Your task to perform on an android device: change keyboard looks Image 0: 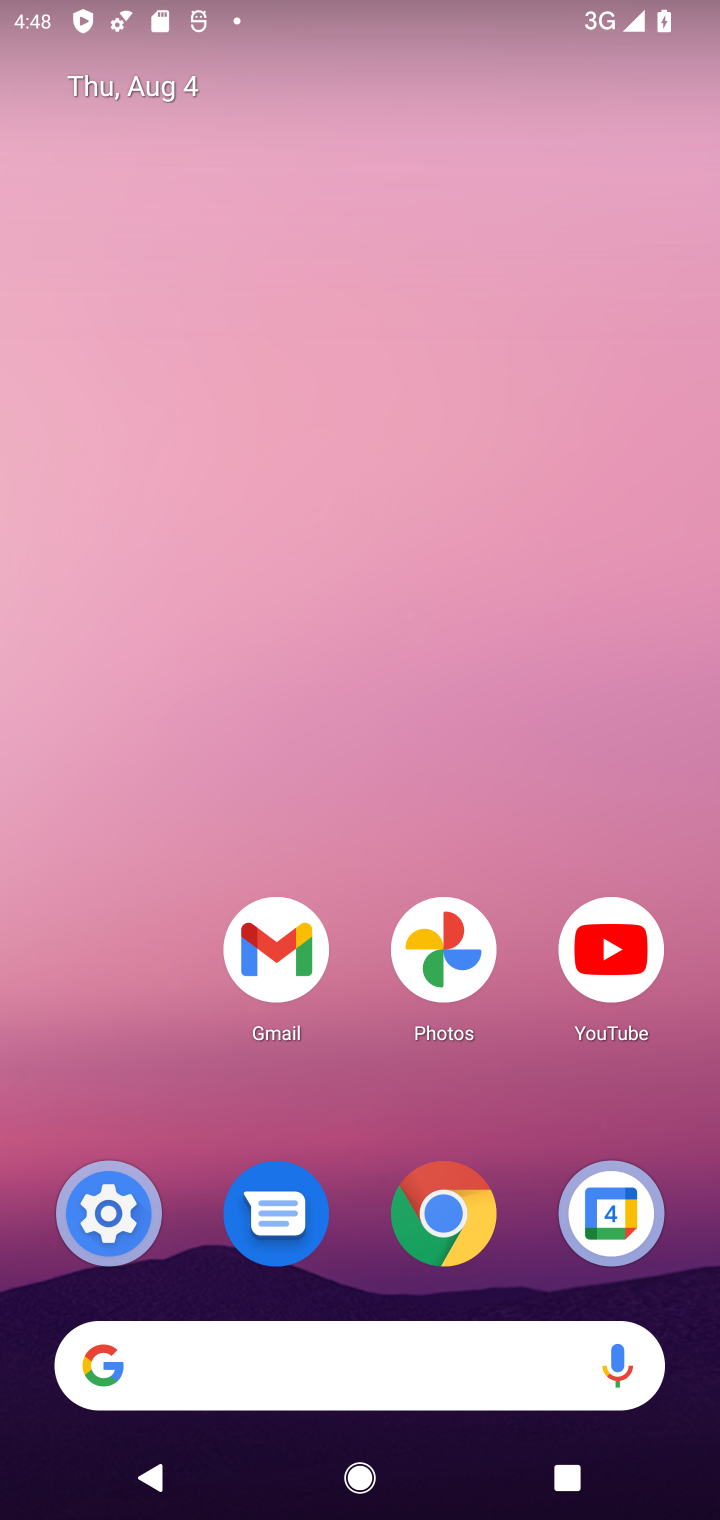
Step 0: press home button
Your task to perform on an android device: change keyboard looks Image 1: 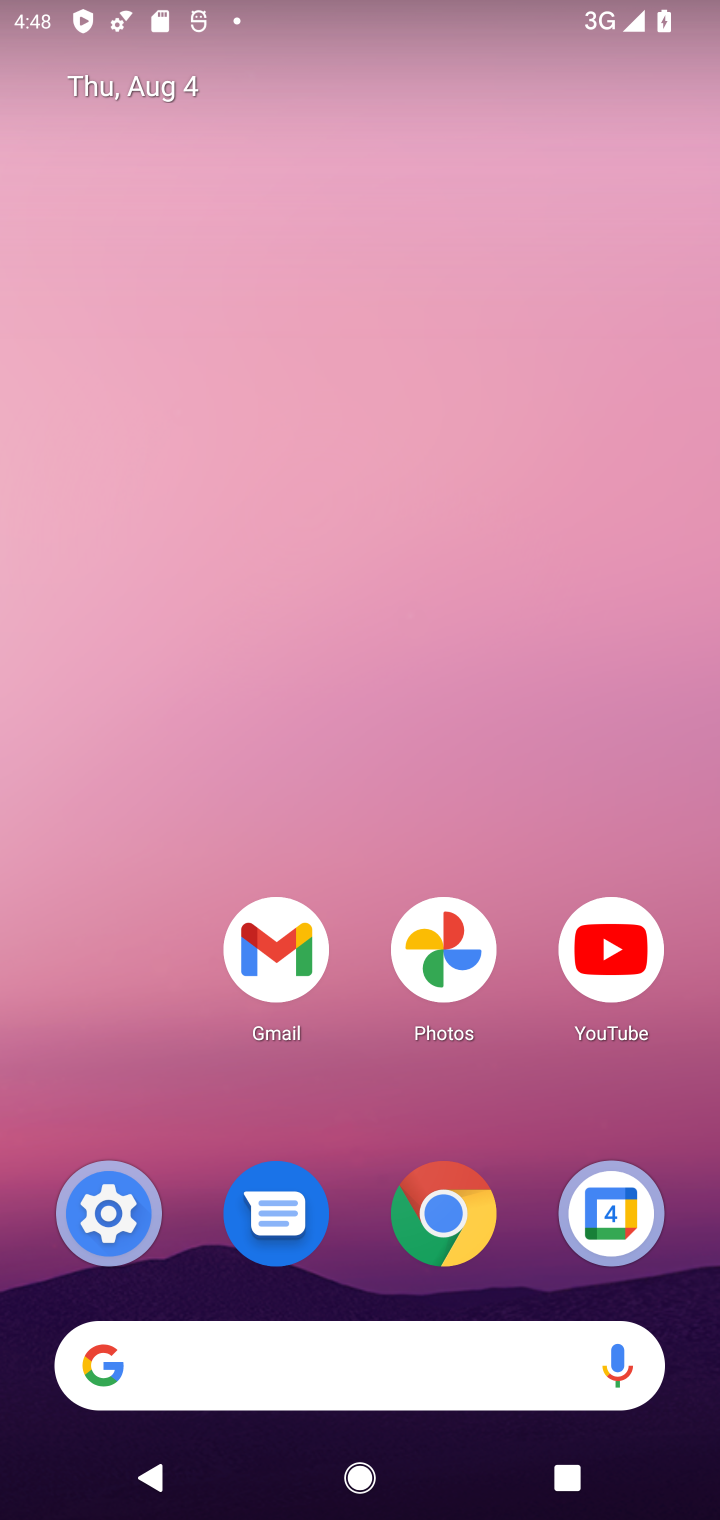
Step 1: drag from (165, 1105) to (219, 259)
Your task to perform on an android device: change keyboard looks Image 2: 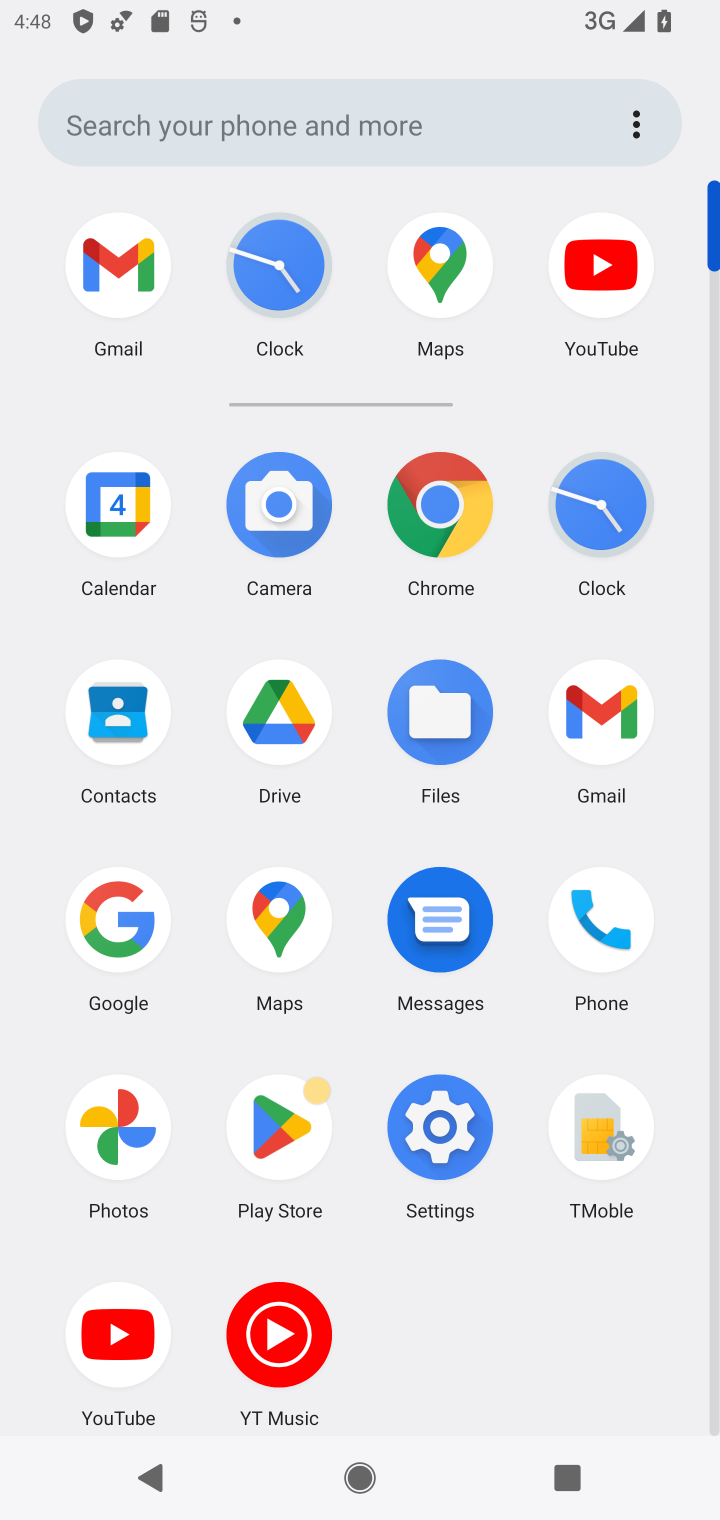
Step 2: click (459, 1135)
Your task to perform on an android device: change keyboard looks Image 3: 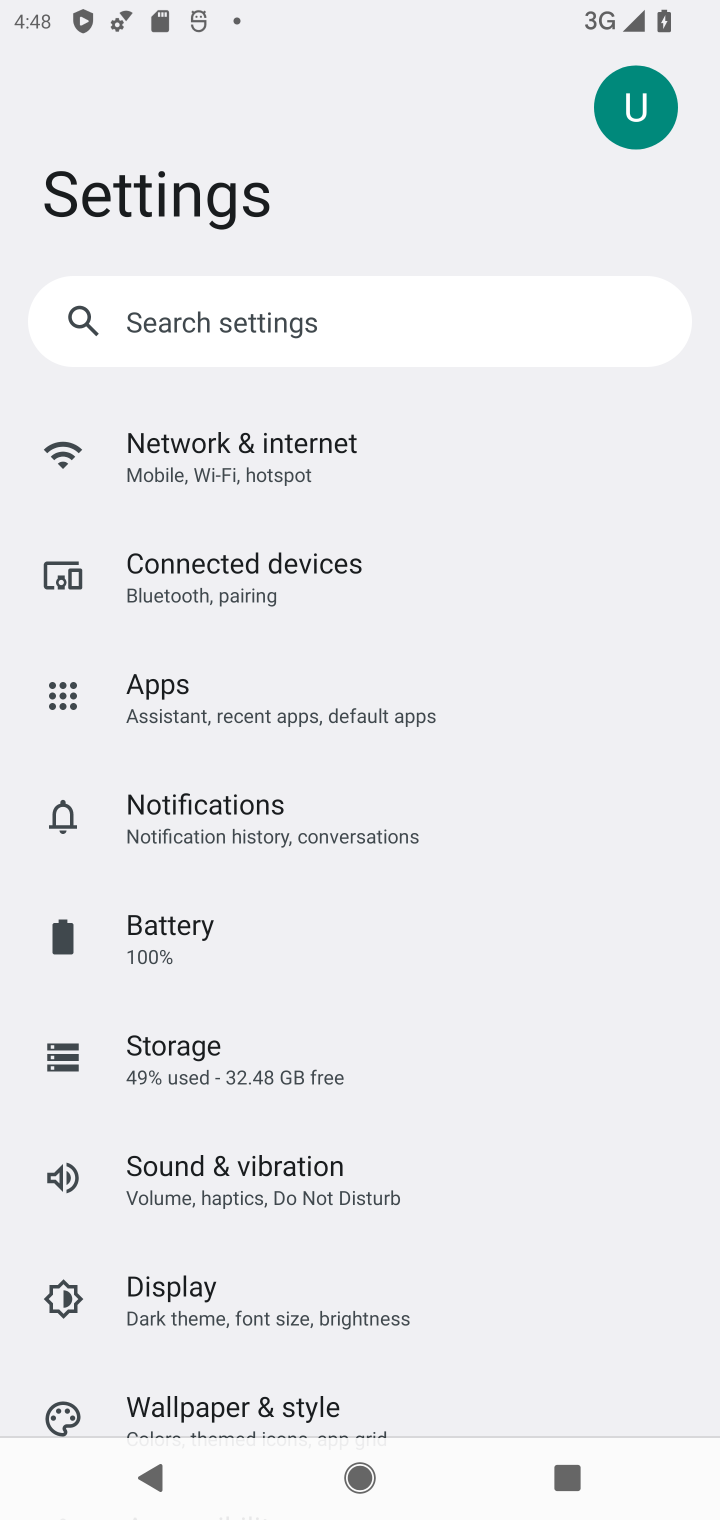
Step 3: drag from (562, 1139) to (585, 772)
Your task to perform on an android device: change keyboard looks Image 4: 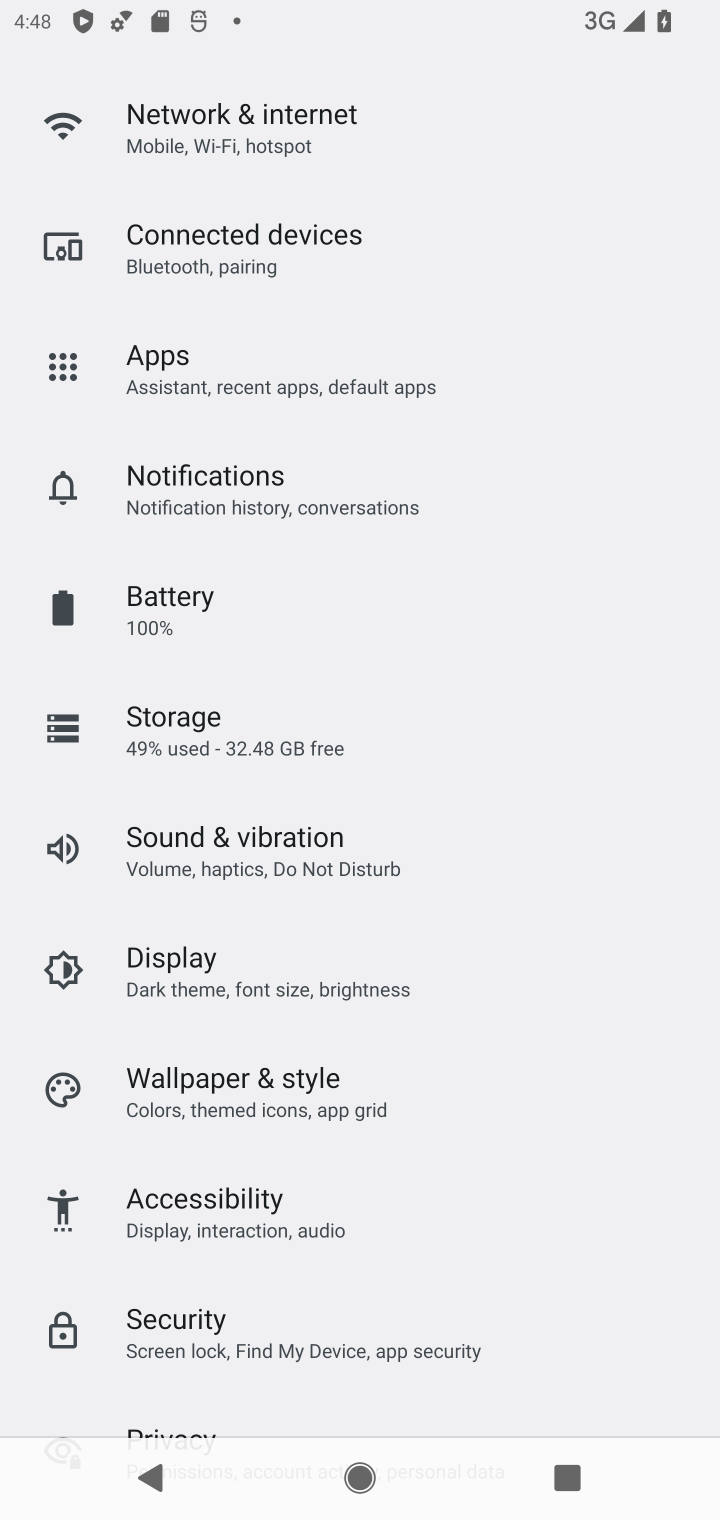
Step 4: drag from (590, 1194) to (614, 821)
Your task to perform on an android device: change keyboard looks Image 5: 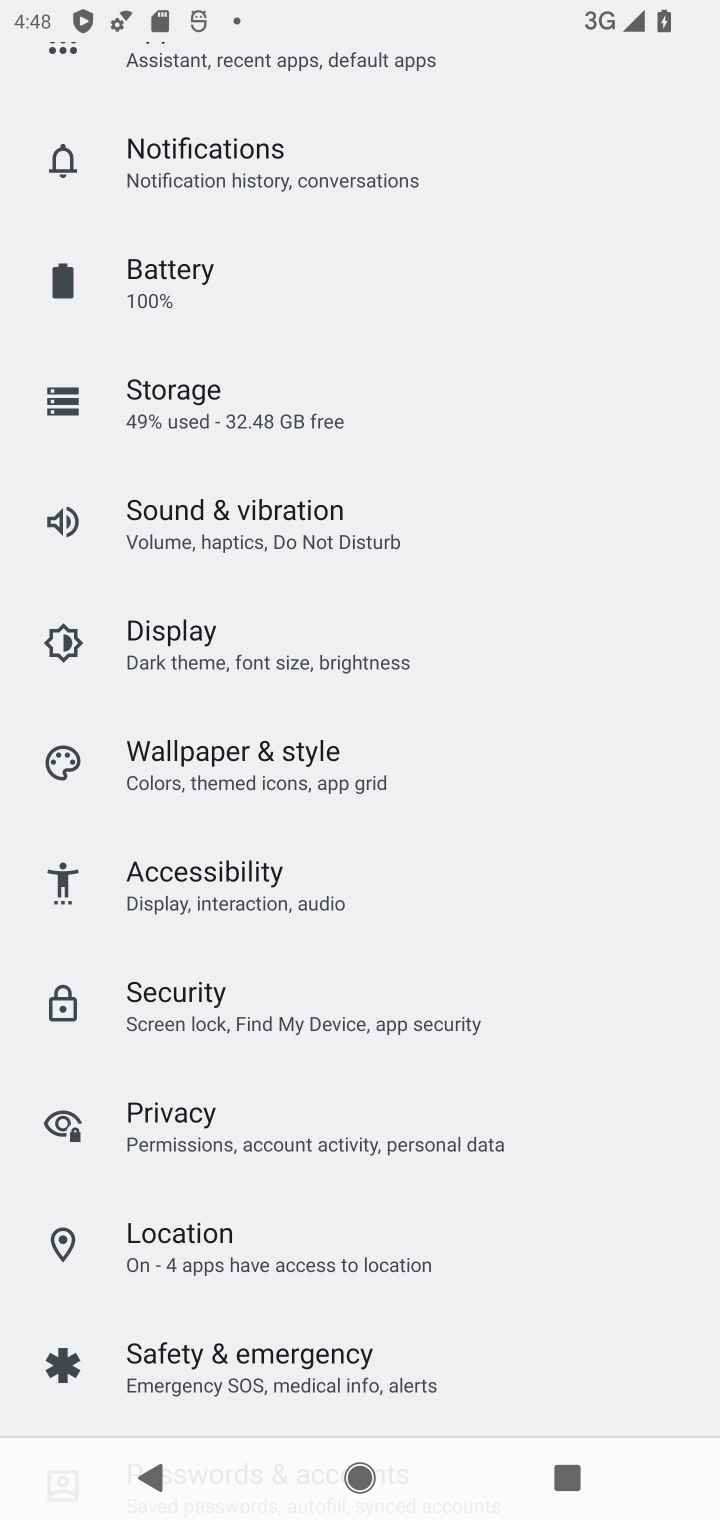
Step 5: drag from (584, 1241) to (592, 808)
Your task to perform on an android device: change keyboard looks Image 6: 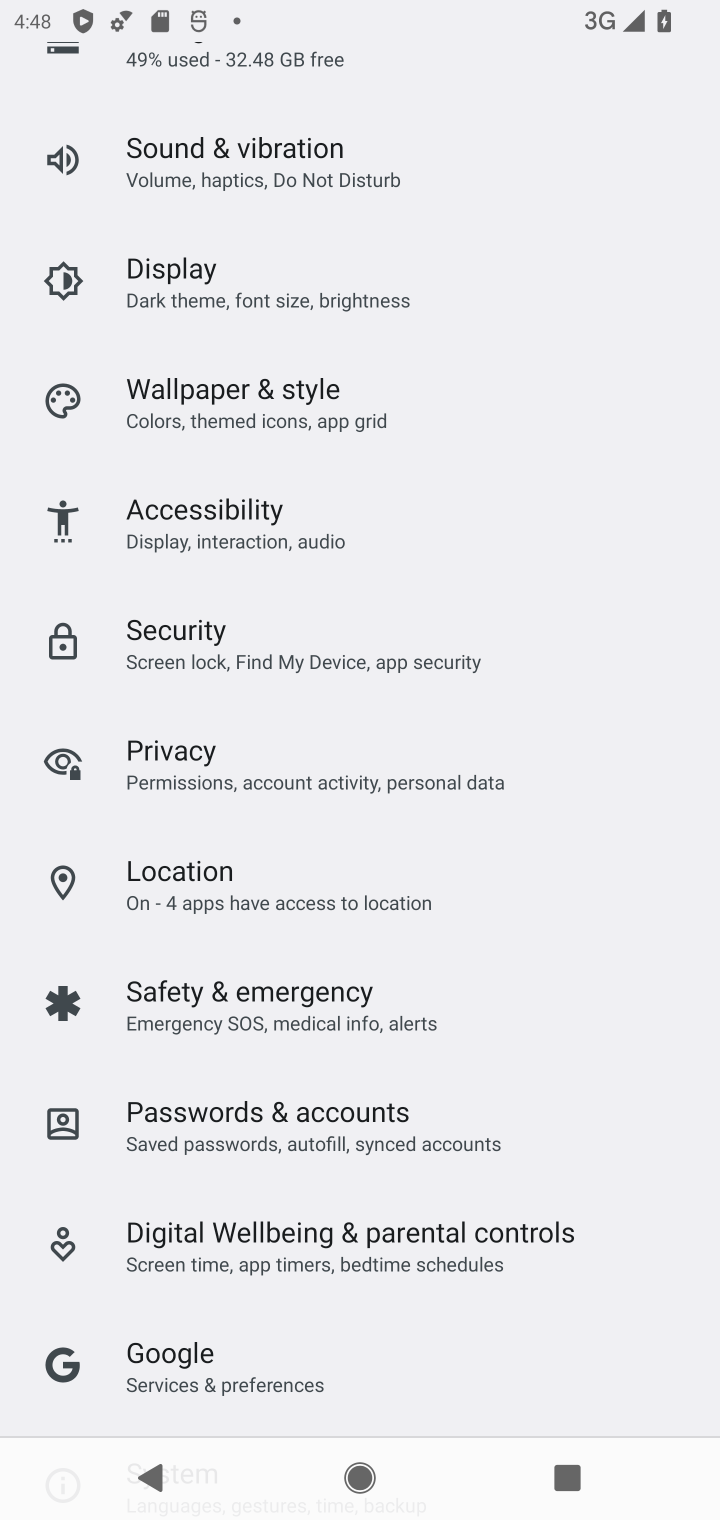
Step 6: drag from (554, 1157) to (583, 764)
Your task to perform on an android device: change keyboard looks Image 7: 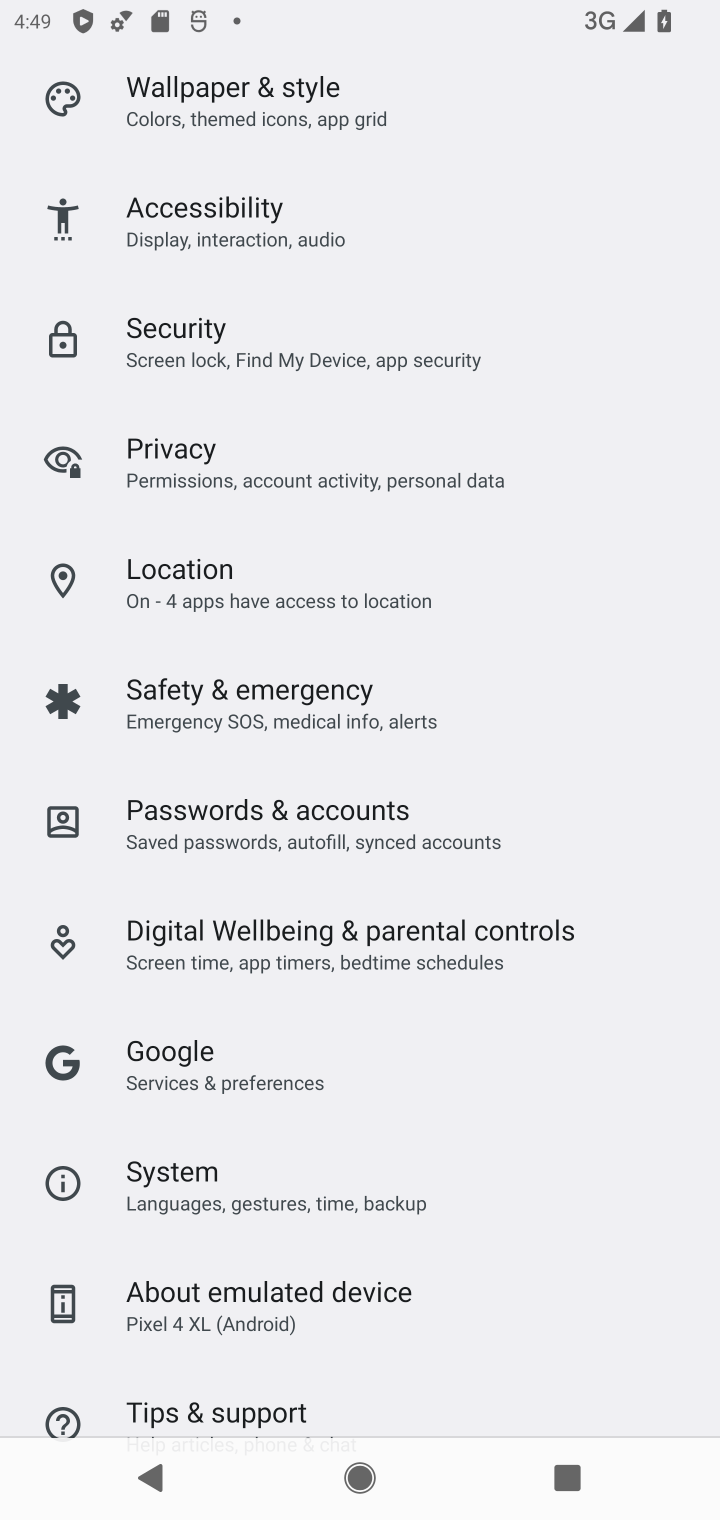
Step 7: click (478, 1195)
Your task to perform on an android device: change keyboard looks Image 8: 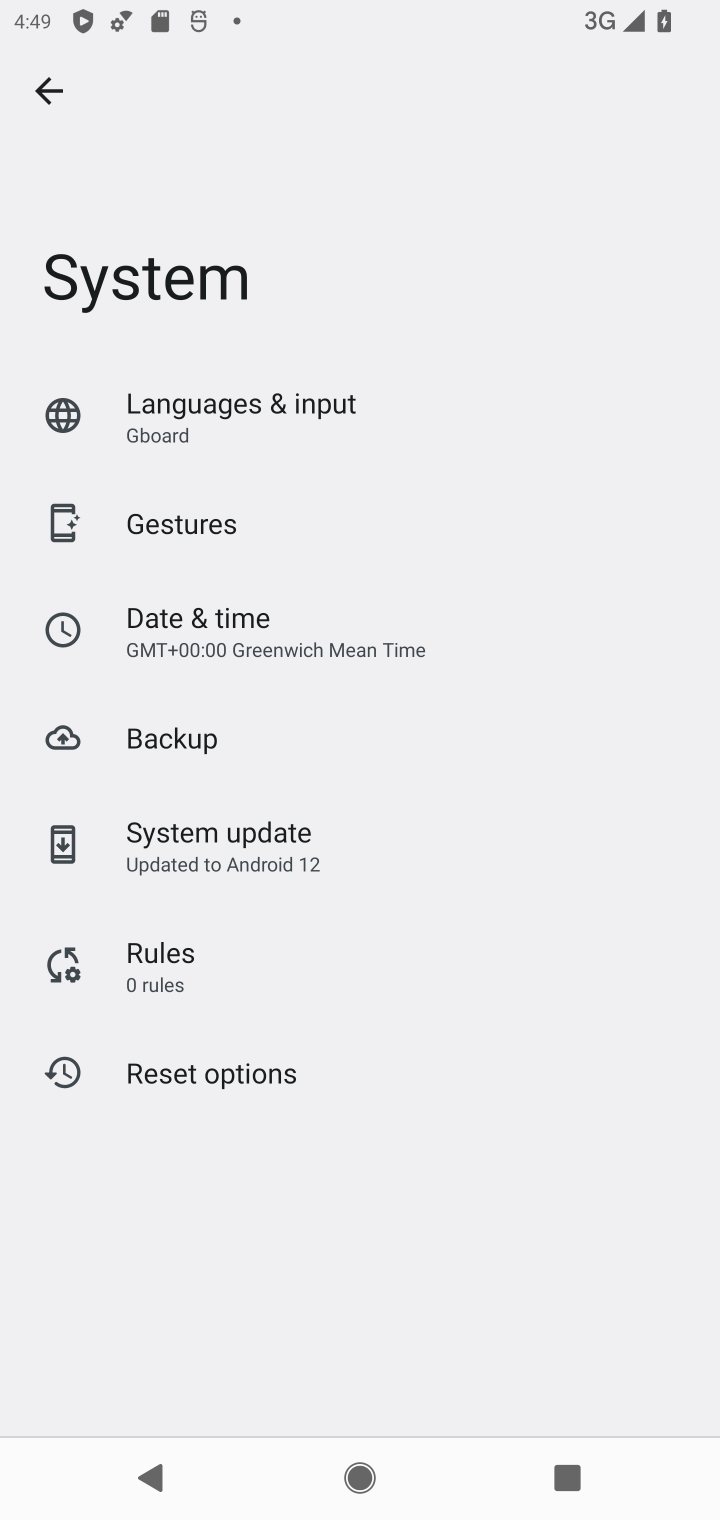
Step 8: click (299, 412)
Your task to perform on an android device: change keyboard looks Image 9: 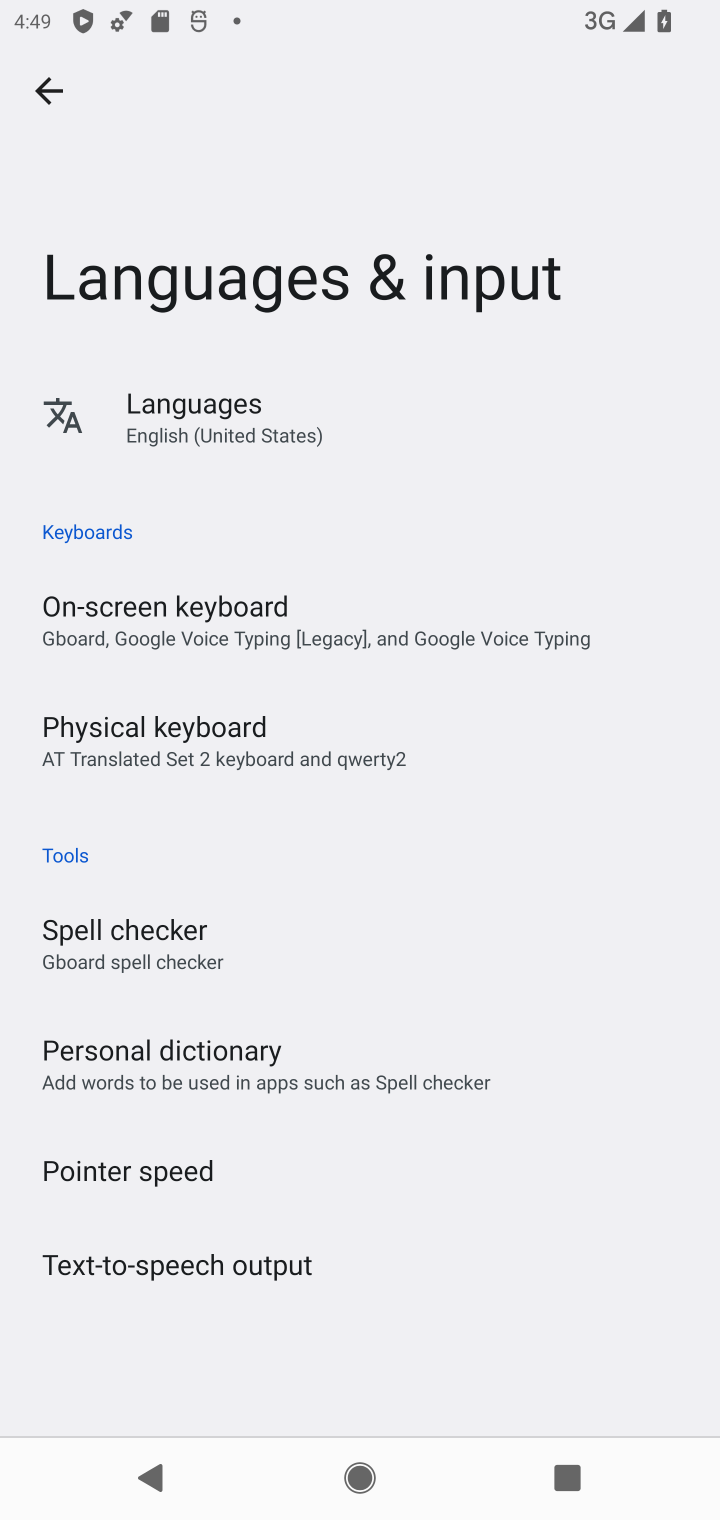
Step 9: drag from (514, 926) to (523, 655)
Your task to perform on an android device: change keyboard looks Image 10: 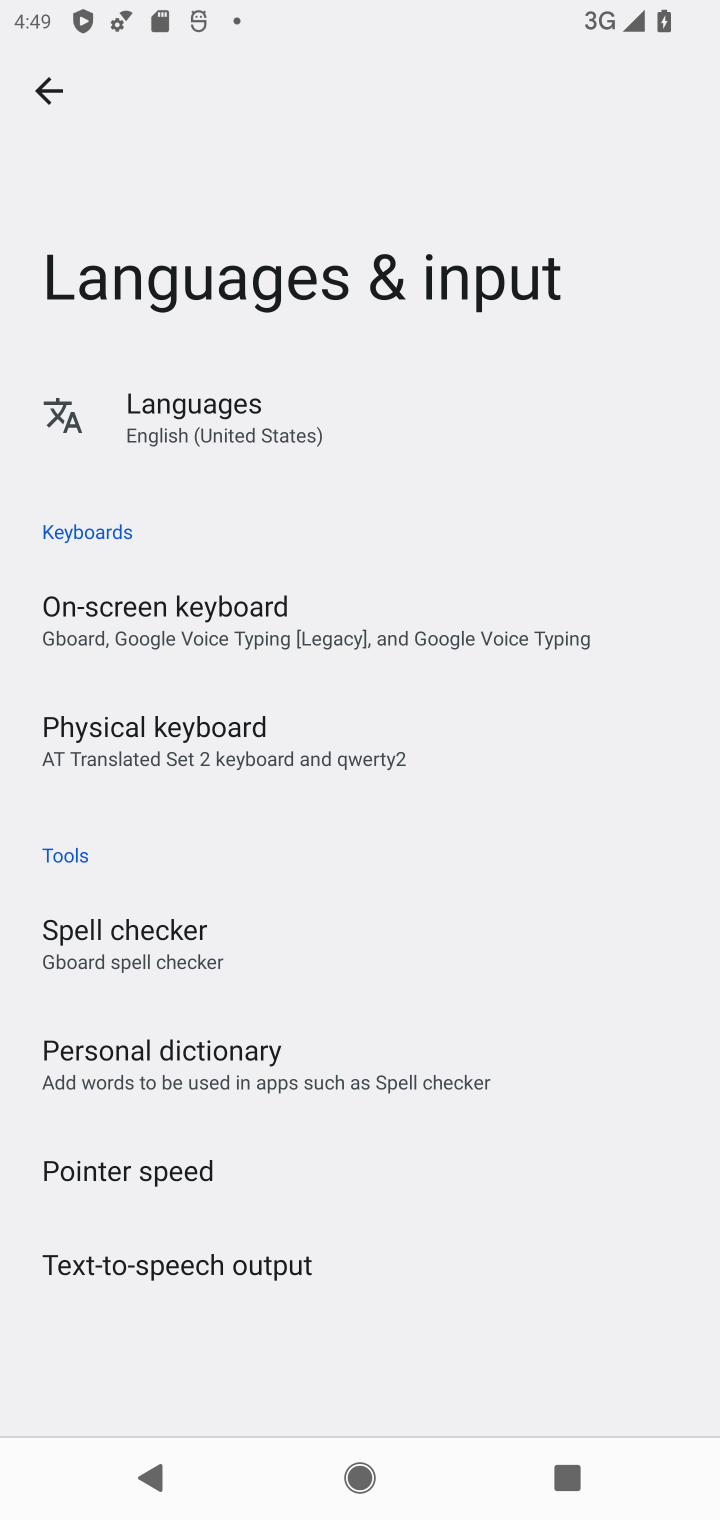
Step 10: click (288, 612)
Your task to perform on an android device: change keyboard looks Image 11: 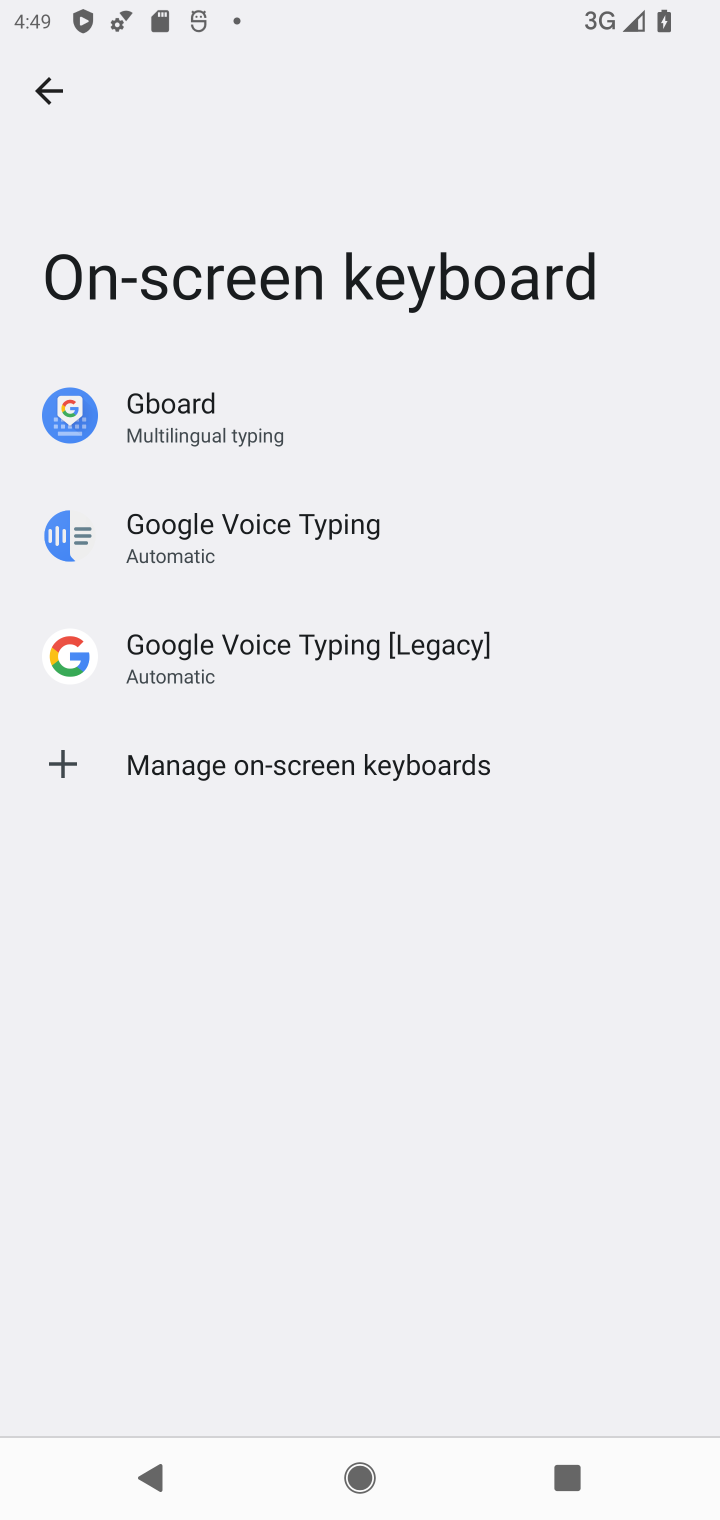
Step 11: click (222, 424)
Your task to perform on an android device: change keyboard looks Image 12: 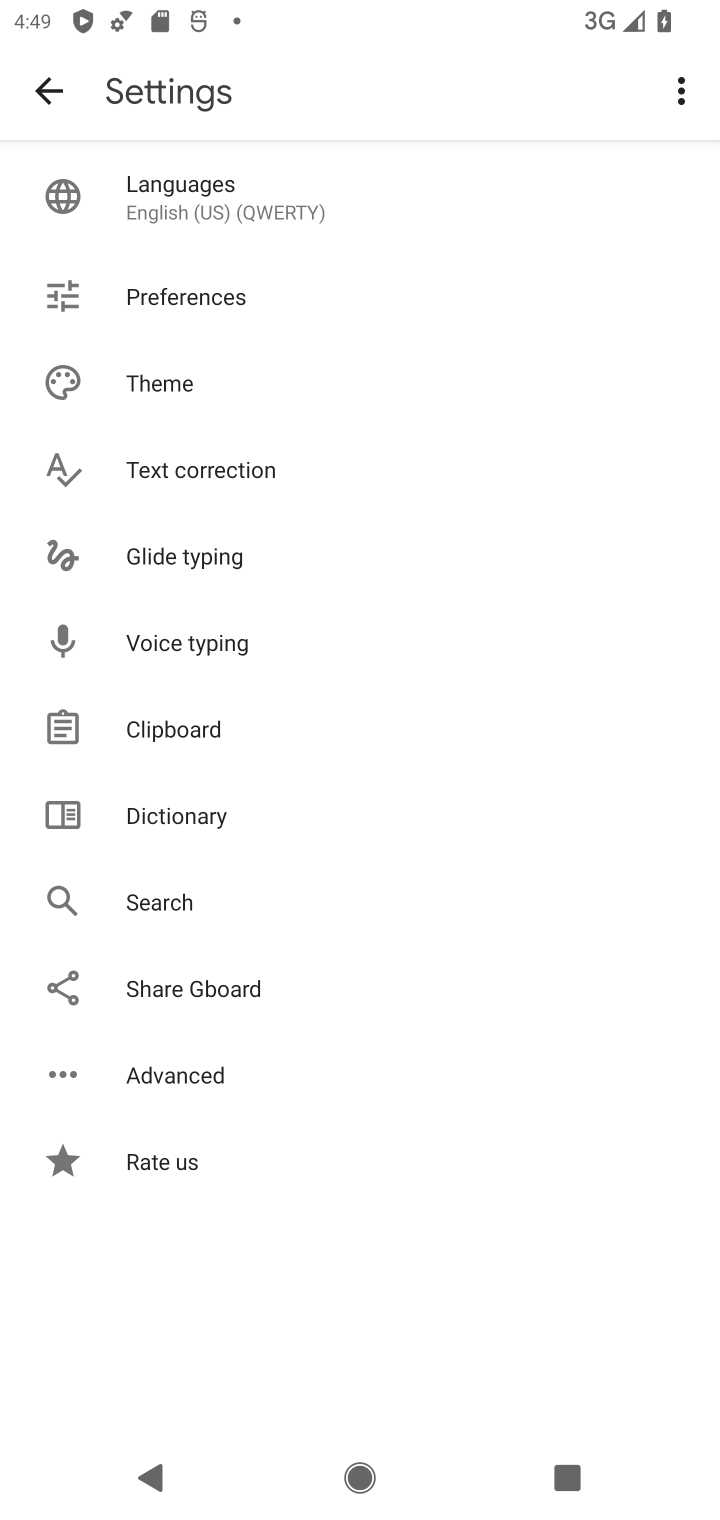
Step 12: click (189, 369)
Your task to perform on an android device: change keyboard looks Image 13: 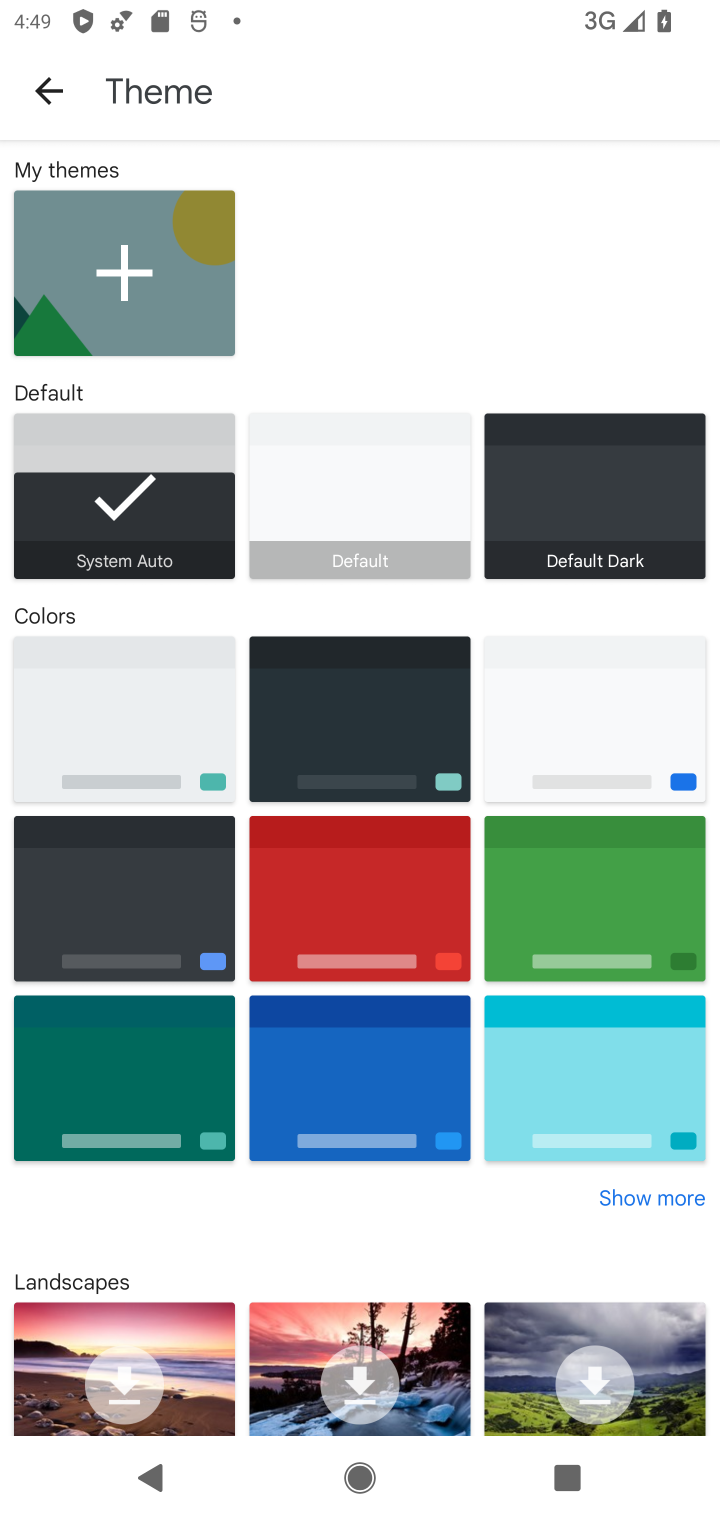
Step 13: click (361, 912)
Your task to perform on an android device: change keyboard looks Image 14: 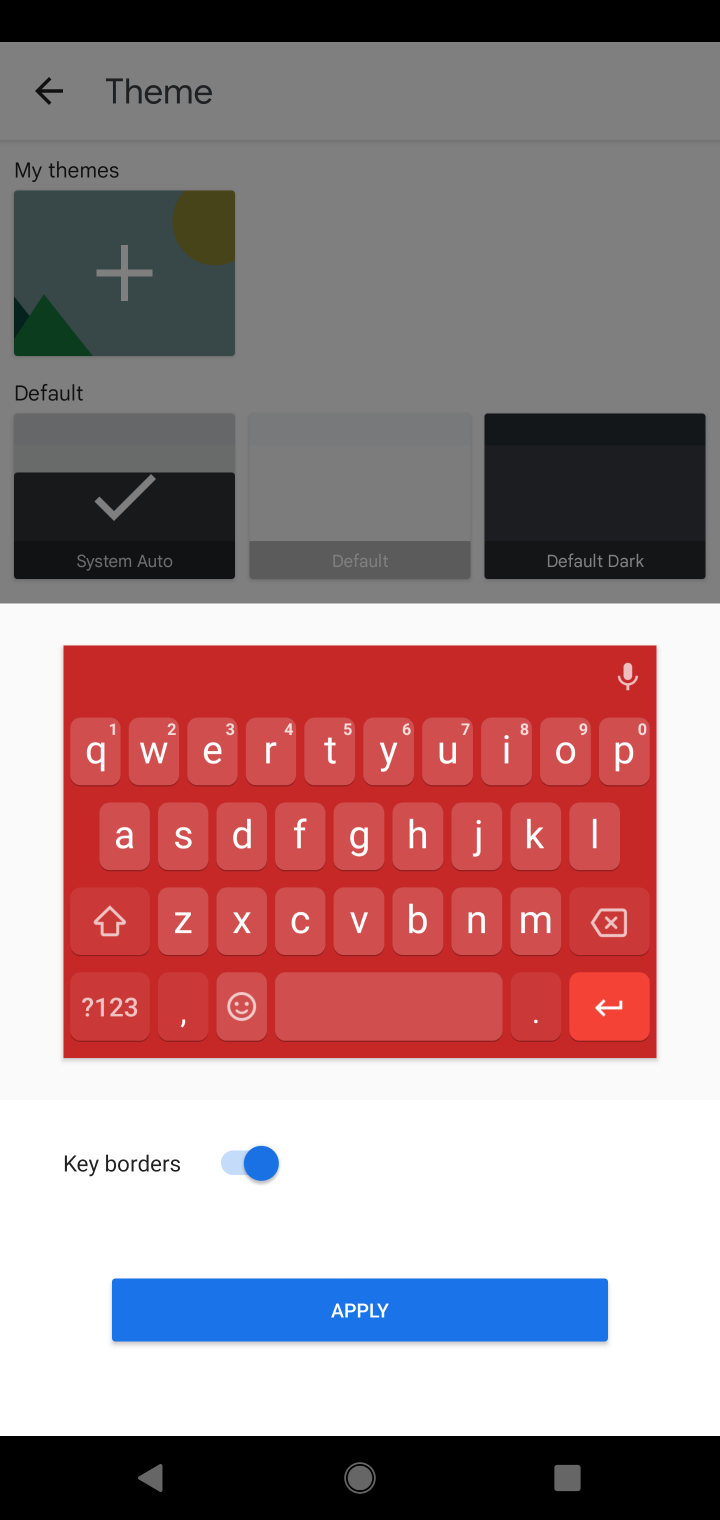
Step 14: click (451, 1293)
Your task to perform on an android device: change keyboard looks Image 15: 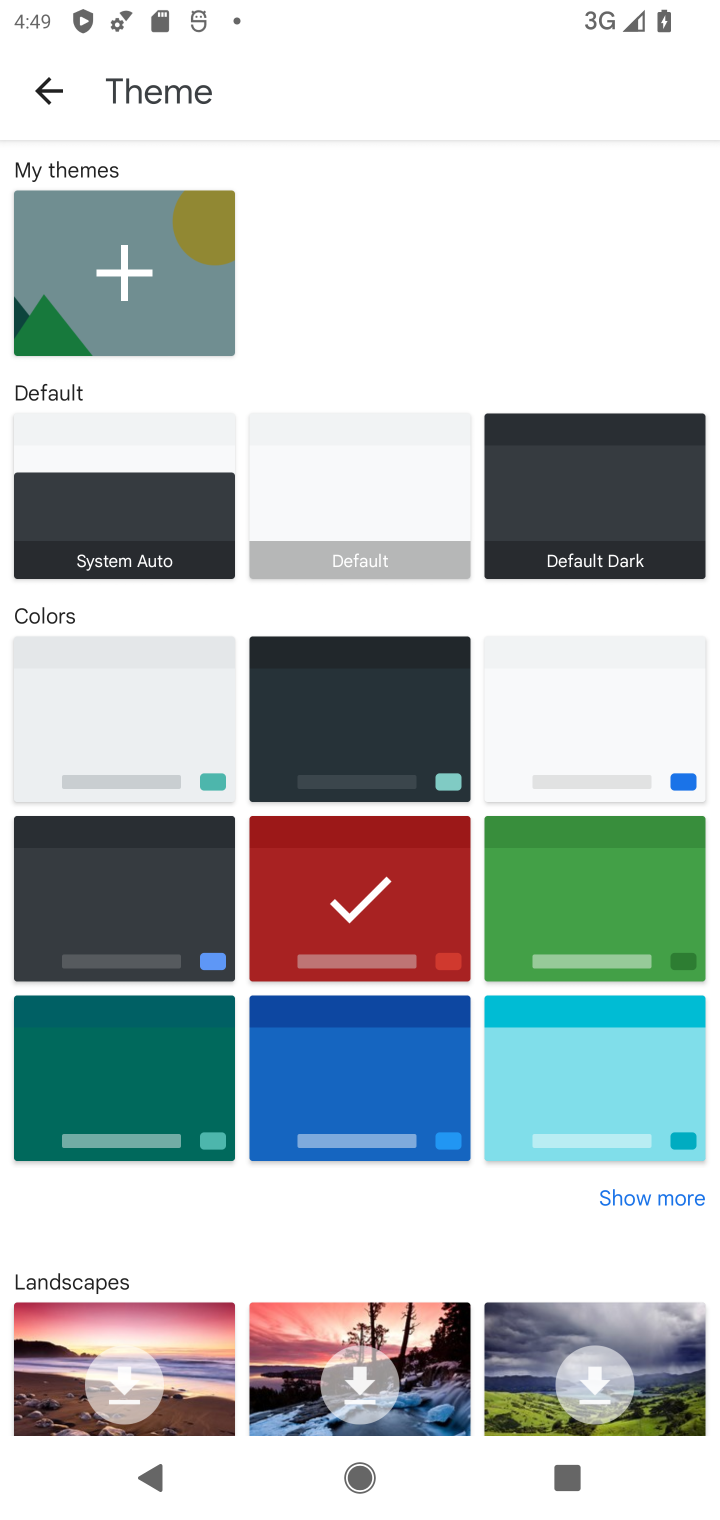
Step 15: task complete